Your task to perform on an android device: toggle translation in the chrome app Image 0: 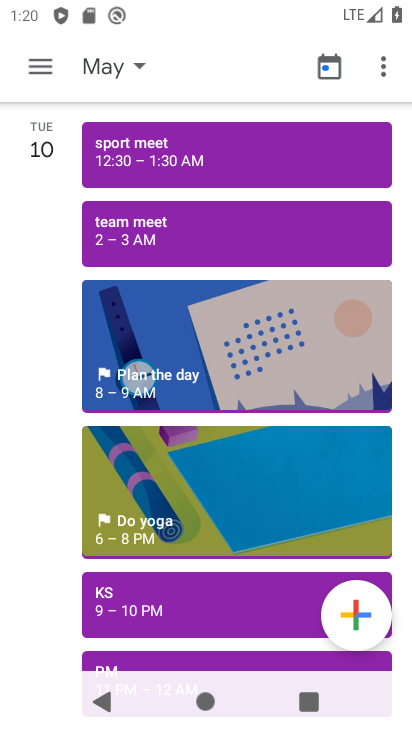
Step 0: press home button
Your task to perform on an android device: toggle translation in the chrome app Image 1: 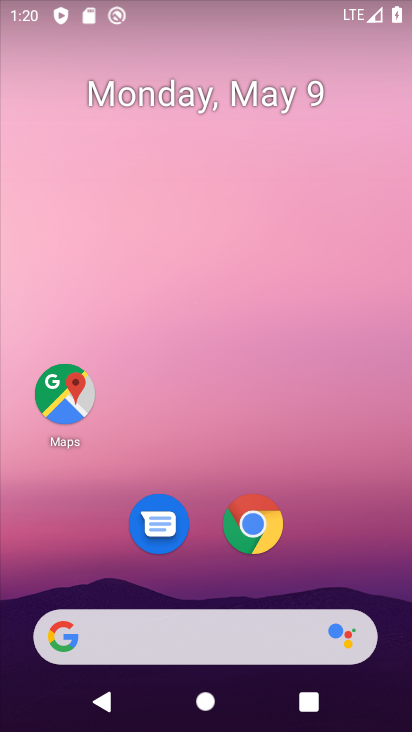
Step 1: click (263, 529)
Your task to perform on an android device: toggle translation in the chrome app Image 2: 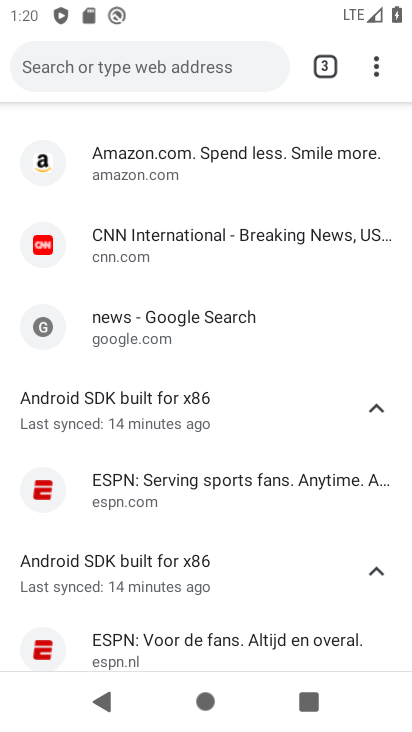
Step 2: click (374, 69)
Your task to perform on an android device: toggle translation in the chrome app Image 3: 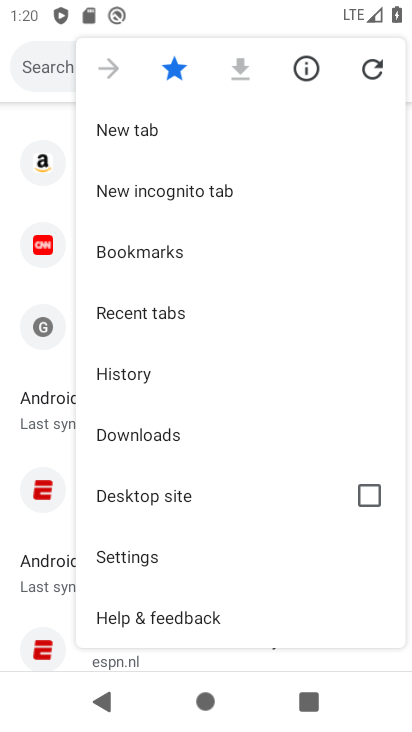
Step 3: click (162, 554)
Your task to perform on an android device: toggle translation in the chrome app Image 4: 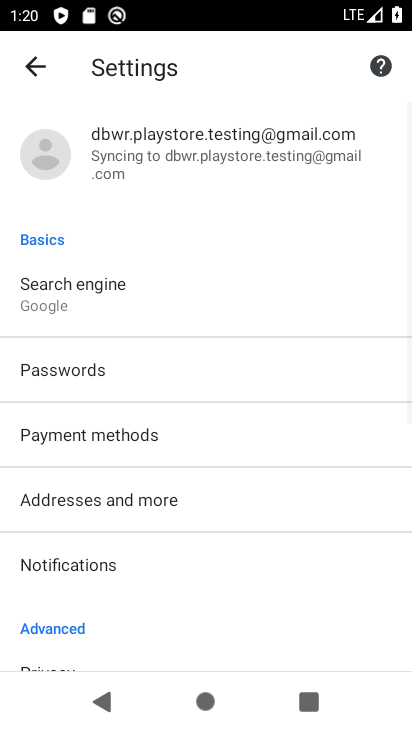
Step 4: drag from (179, 589) to (196, 201)
Your task to perform on an android device: toggle translation in the chrome app Image 5: 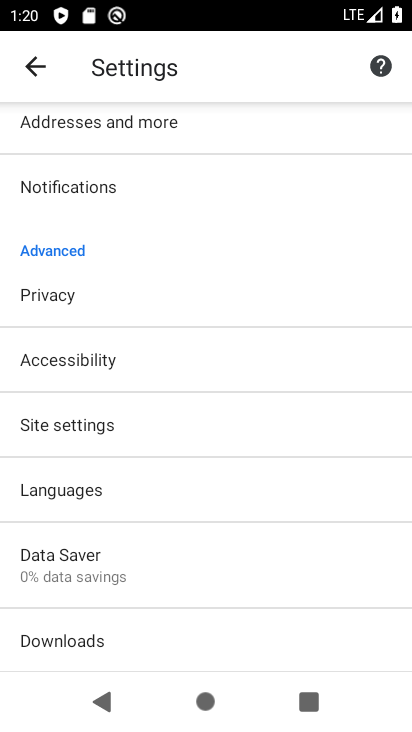
Step 5: click (136, 482)
Your task to perform on an android device: toggle translation in the chrome app Image 6: 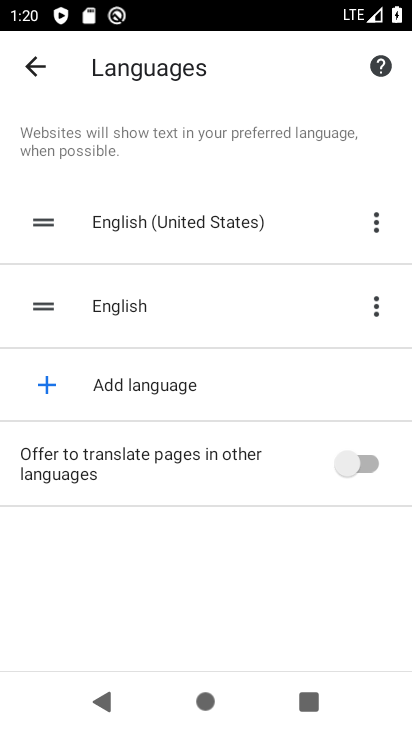
Step 6: click (362, 455)
Your task to perform on an android device: toggle translation in the chrome app Image 7: 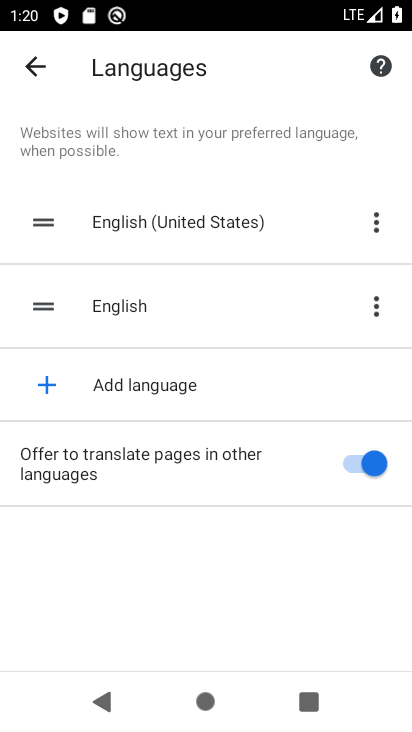
Step 7: task complete